Your task to perform on an android device: open chrome and create a bookmark for the current page Image 0: 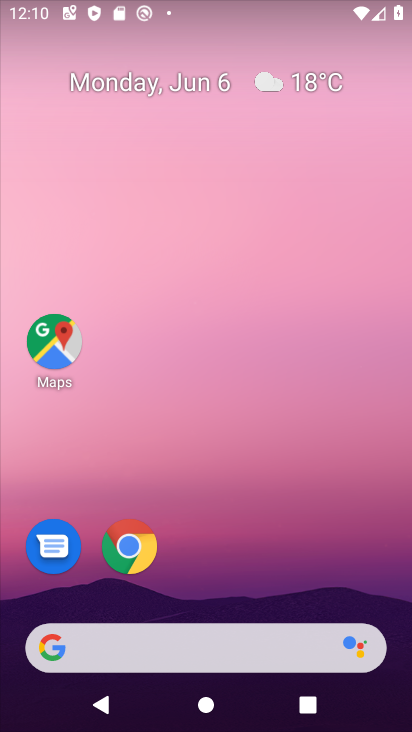
Step 0: click (120, 524)
Your task to perform on an android device: open chrome and create a bookmark for the current page Image 1: 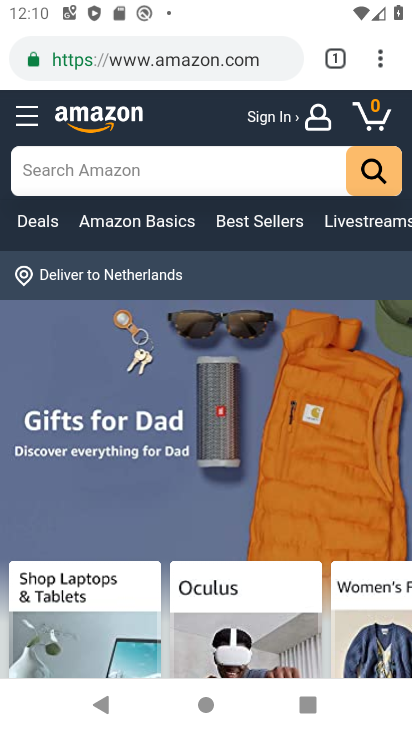
Step 1: click (375, 54)
Your task to perform on an android device: open chrome and create a bookmark for the current page Image 2: 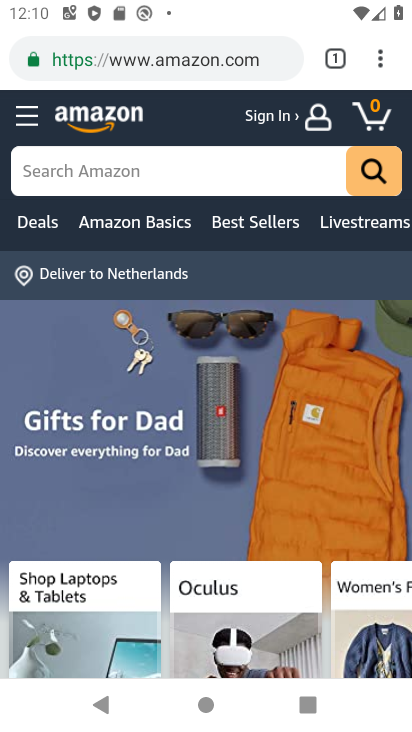
Step 2: click (383, 63)
Your task to perform on an android device: open chrome and create a bookmark for the current page Image 3: 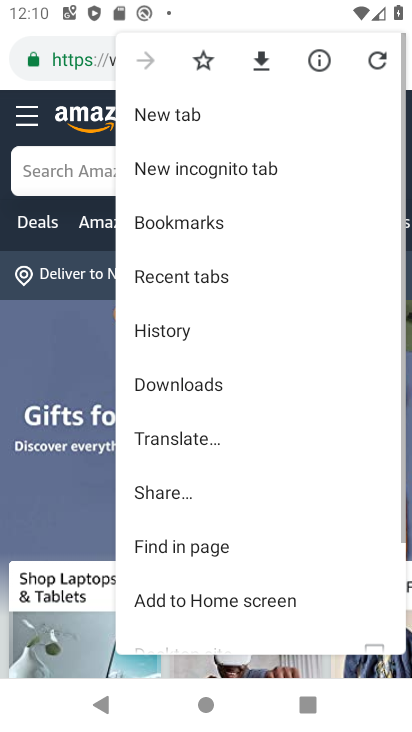
Step 3: click (195, 59)
Your task to perform on an android device: open chrome and create a bookmark for the current page Image 4: 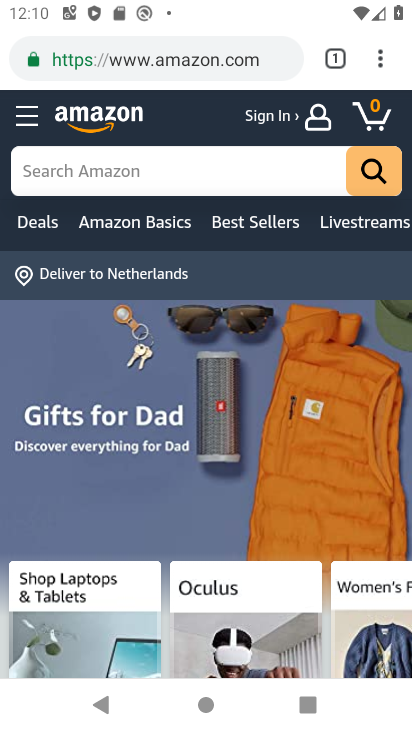
Step 4: task complete